Your task to perform on an android device: check google app version Image 0: 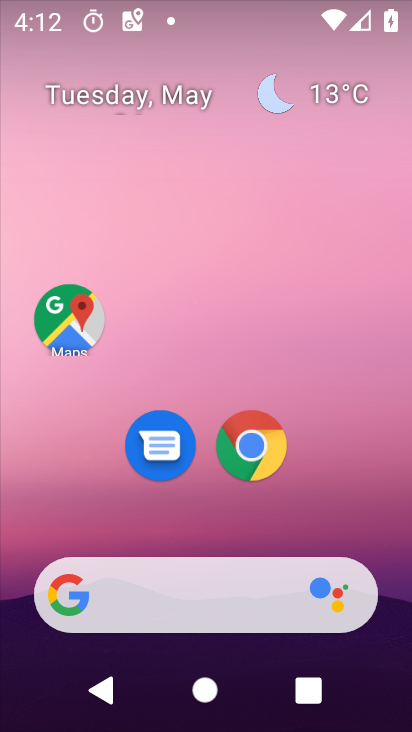
Step 0: press home button
Your task to perform on an android device: check google app version Image 1: 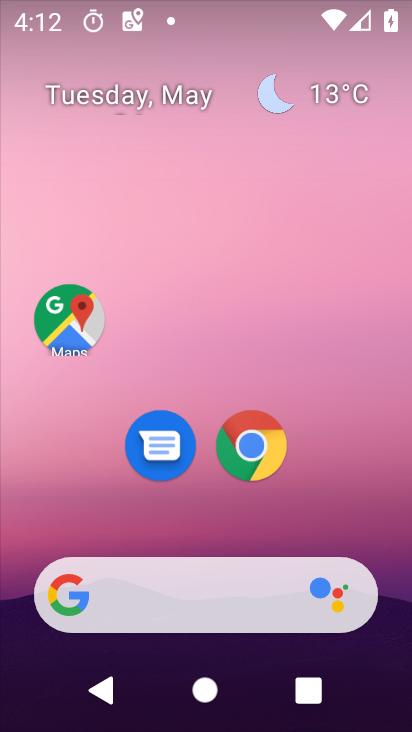
Step 1: drag from (204, 530) to (213, 95)
Your task to perform on an android device: check google app version Image 2: 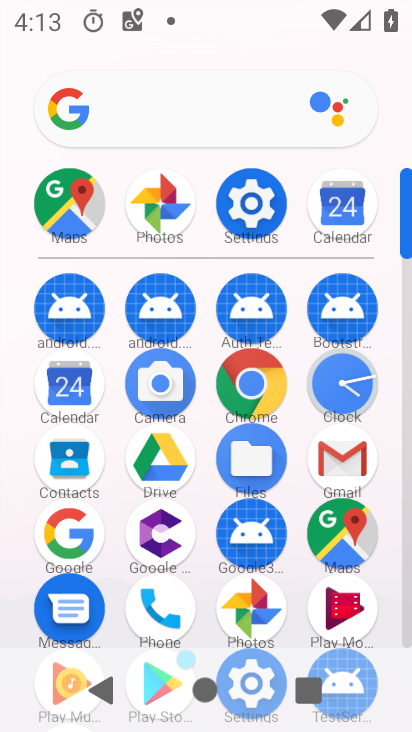
Step 2: click (66, 527)
Your task to perform on an android device: check google app version Image 3: 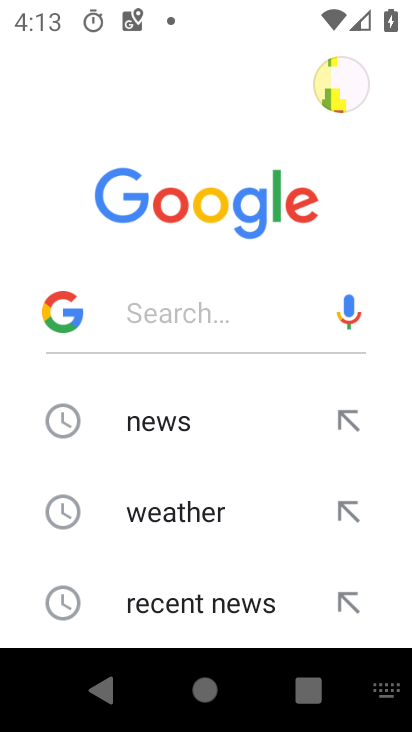
Step 3: press back button
Your task to perform on an android device: check google app version Image 4: 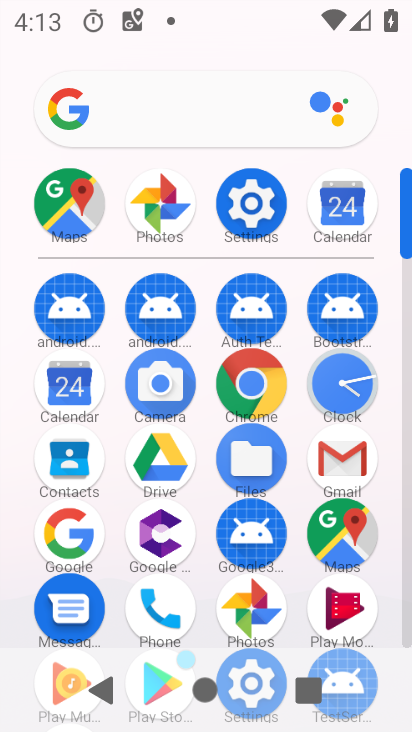
Step 4: click (66, 528)
Your task to perform on an android device: check google app version Image 5: 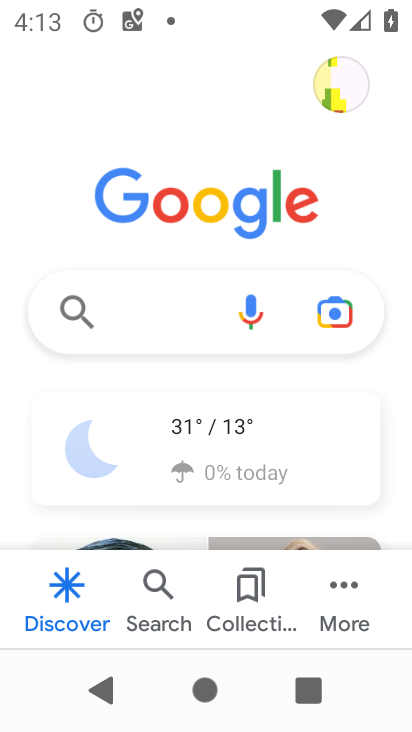
Step 5: click (345, 577)
Your task to perform on an android device: check google app version Image 6: 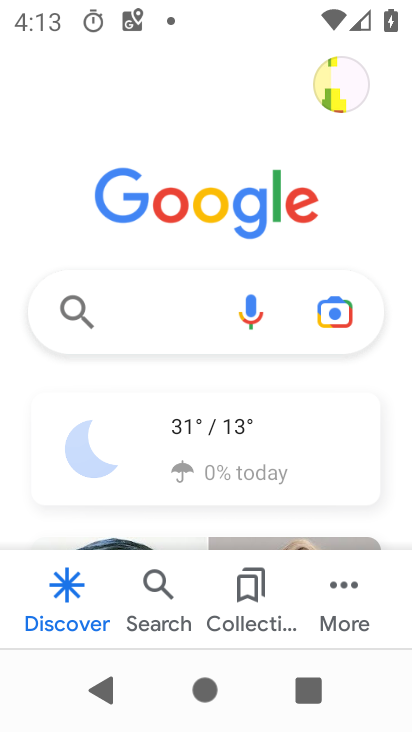
Step 6: click (345, 577)
Your task to perform on an android device: check google app version Image 7: 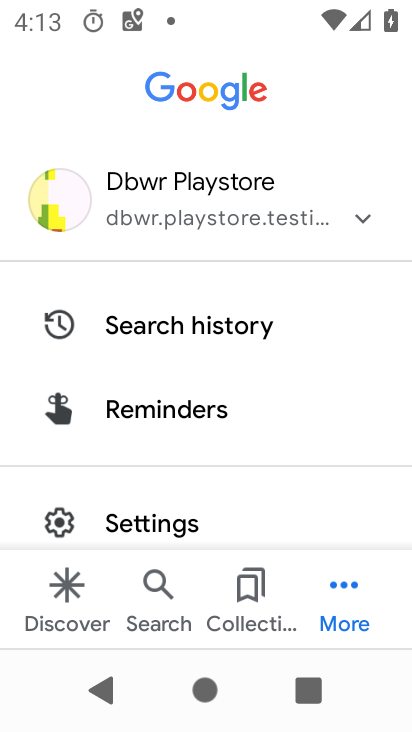
Step 7: click (211, 525)
Your task to perform on an android device: check google app version Image 8: 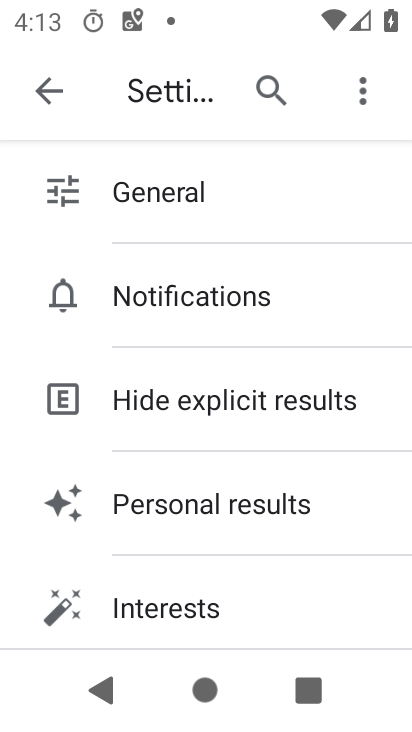
Step 8: drag from (253, 606) to (256, 140)
Your task to perform on an android device: check google app version Image 9: 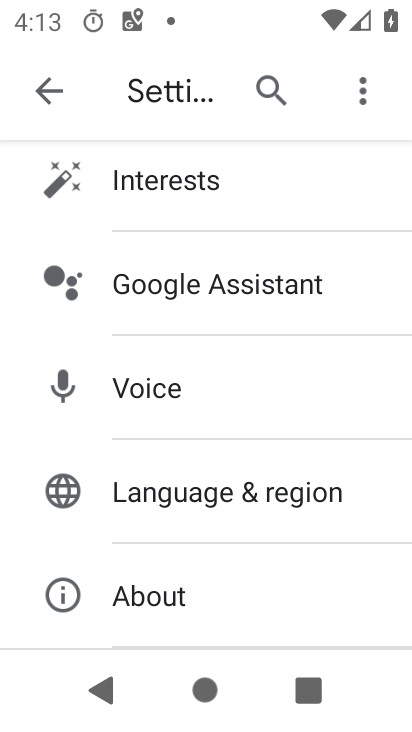
Step 9: click (195, 599)
Your task to perform on an android device: check google app version Image 10: 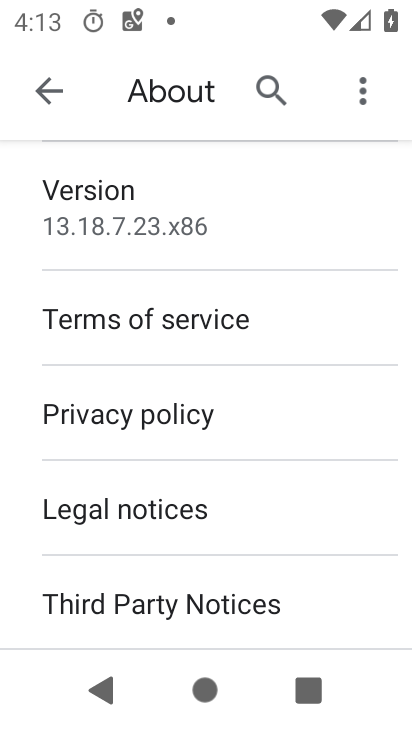
Step 10: task complete